Your task to perform on an android device: Open eBay Image 0: 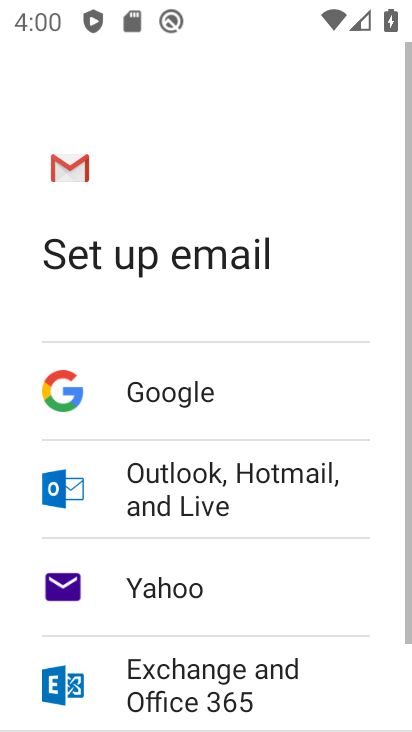
Step 0: press back button
Your task to perform on an android device: Open eBay Image 1: 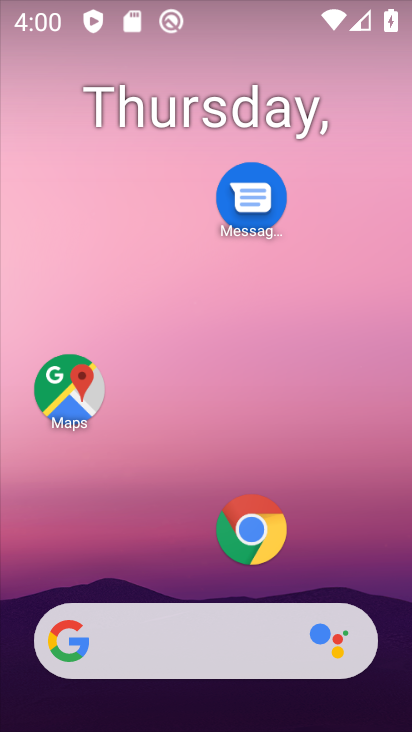
Step 1: click (244, 536)
Your task to perform on an android device: Open eBay Image 2: 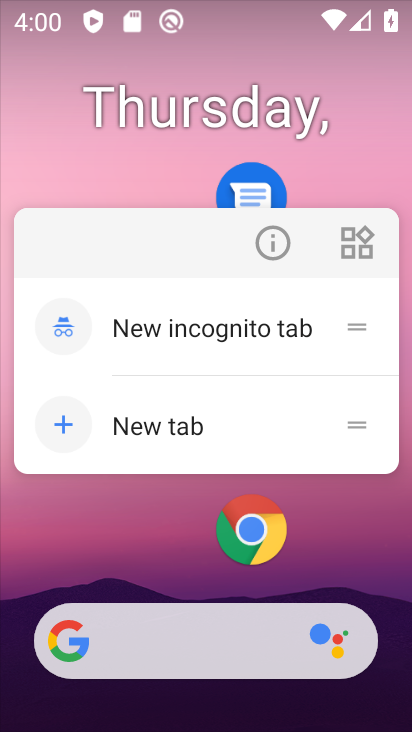
Step 2: click (248, 531)
Your task to perform on an android device: Open eBay Image 3: 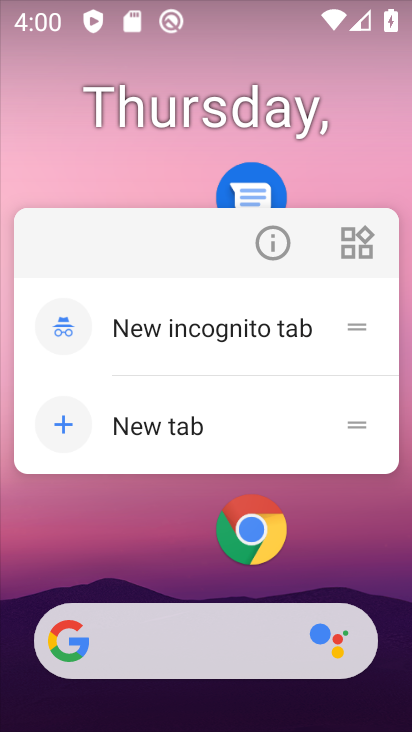
Step 3: click (274, 539)
Your task to perform on an android device: Open eBay Image 4: 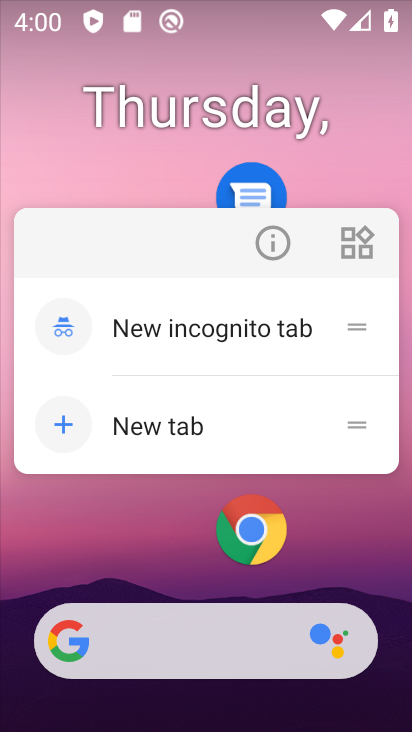
Step 4: click (275, 538)
Your task to perform on an android device: Open eBay Image 5: 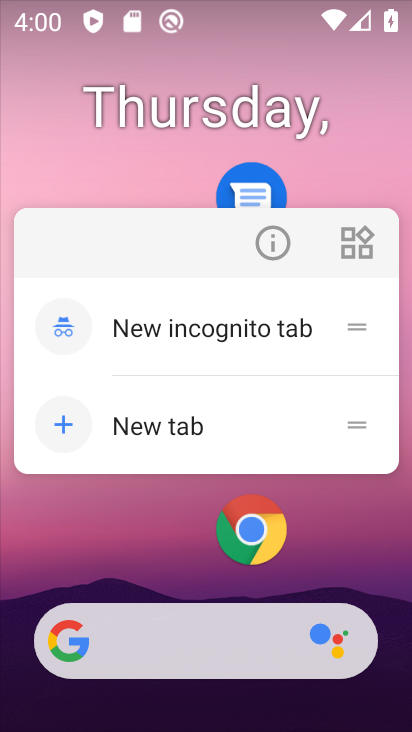
Step 5: click (259, 532)
Your task to perform on an android device: Open eBay Image 6: 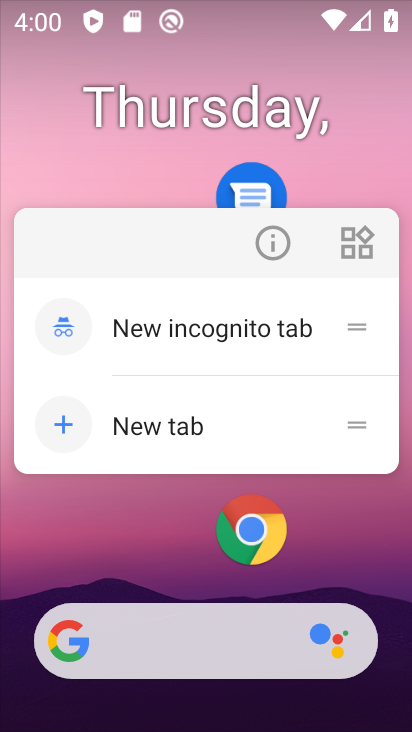
Step 6: click (259, 532)
Your task to perform on an android device: Open eBay Image 7: 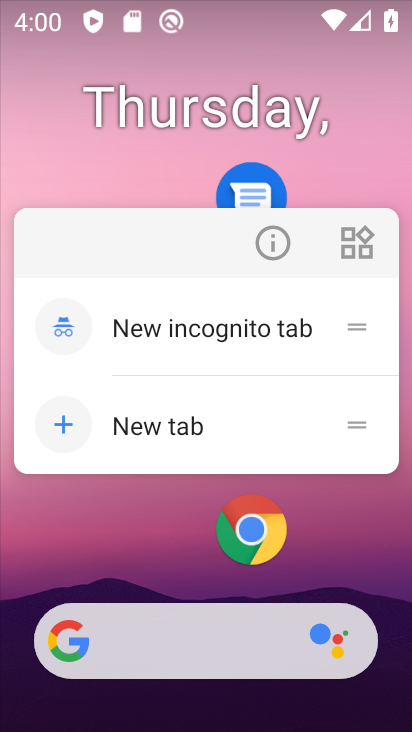
Step 7: click (259, 532)
Your task to perform on an android device: Open eBay Image 8: 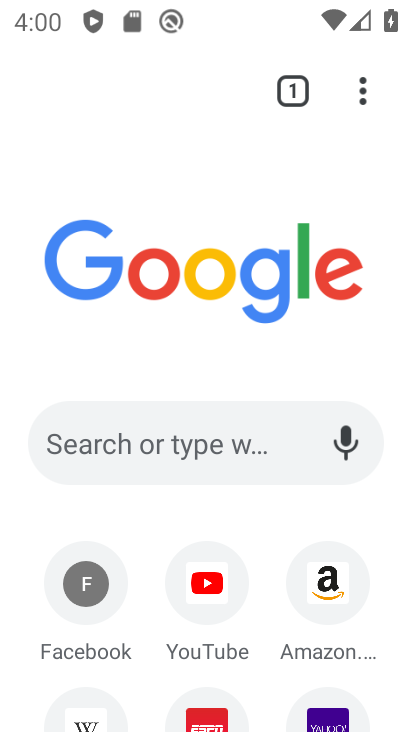
Step 8: click (146, 449)
Your task to perform on an android device: Open eBay Image 9: 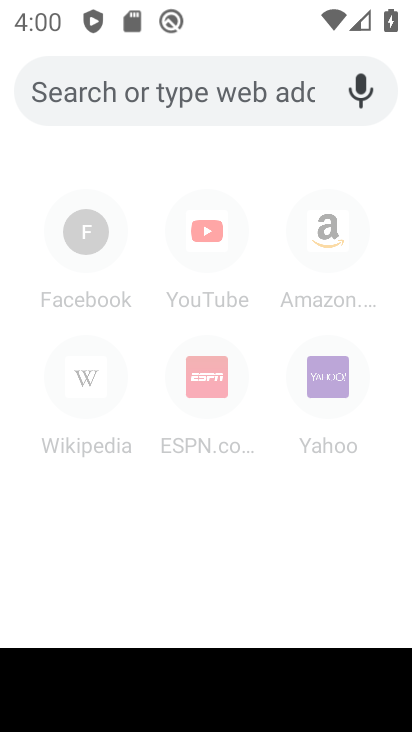
Step 9: type "ebay.com"
Your task to perform on an android device: Open eBay Image 10: 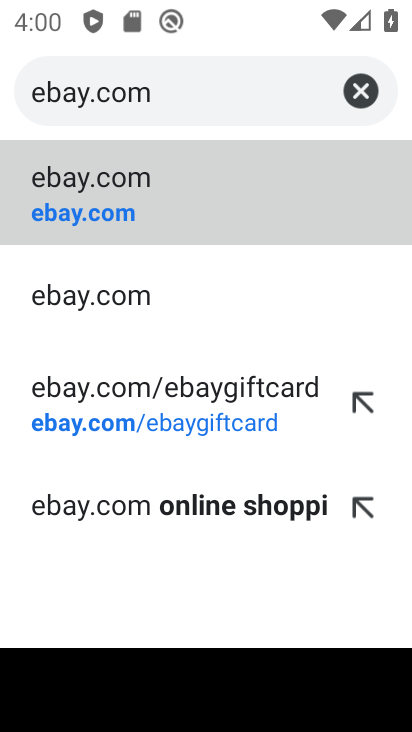
Step 10: click (183, 226)
Your task to perform on an android device: Open eBay Image 11: 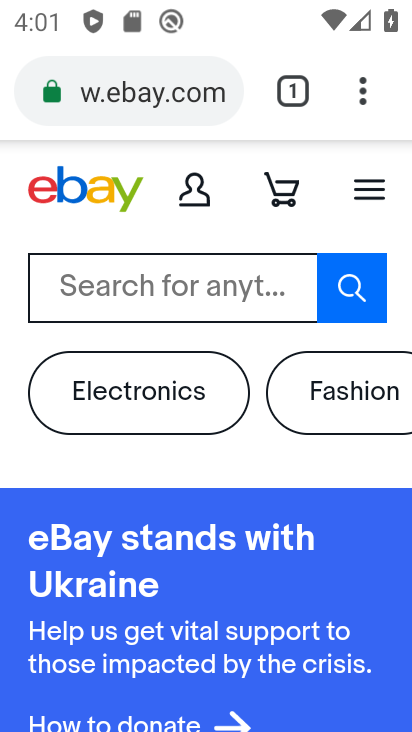
Step 11: task complete